Your task to perform on an android device: turn on wifi Image 0: 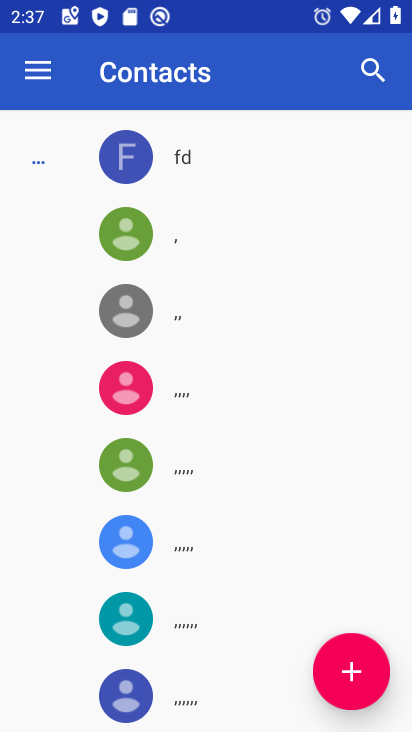
Step 0: press home button
Your task to perform on an android device: turn on wifi Image 1: 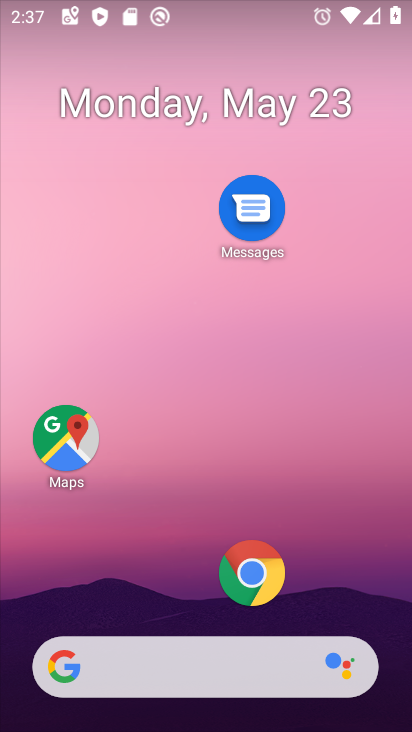
Step 1: drag from (297, 659) to (301, 27)
Your task to perform on an android device: turn on wifi Image 2: 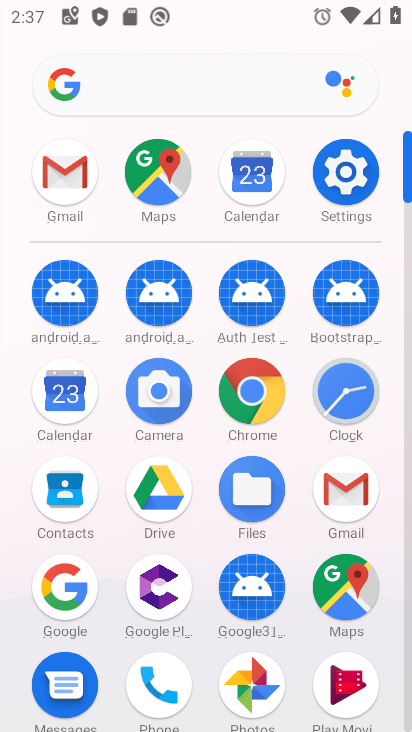
Step 2: click (340, 159)
Your task to perform on an android device: turn on wifi Image 3: 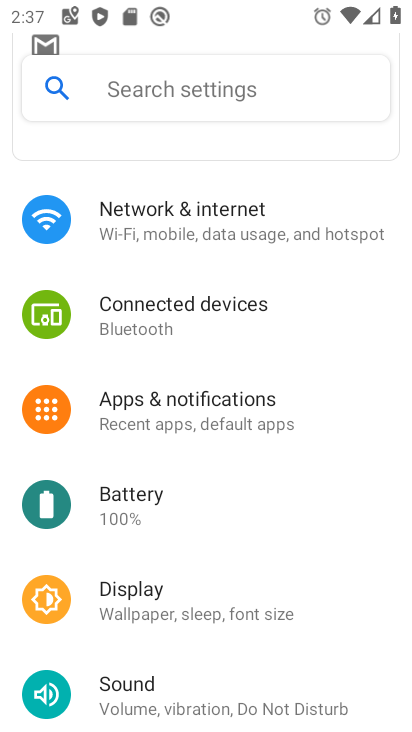
Step 3: drag from (315, 193) to (270, 717)
Your task to perform on an android device: turn on wifi Image 4: 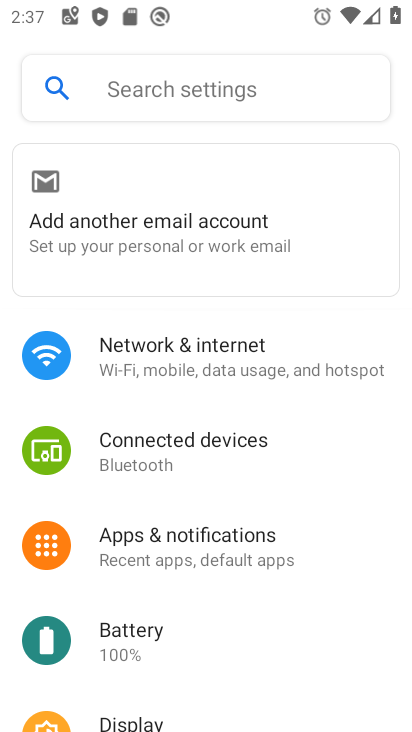
Step 4: click (229, 383)
Your task to perform on an android device: turn on wifi Image 5: 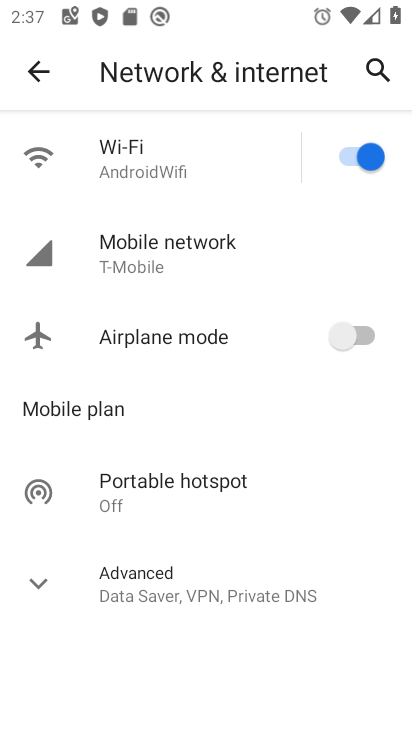
Step 5: drag from (238, 375) to (255, 671)
Your task to perform on an android device: turn on wifi Image 6: 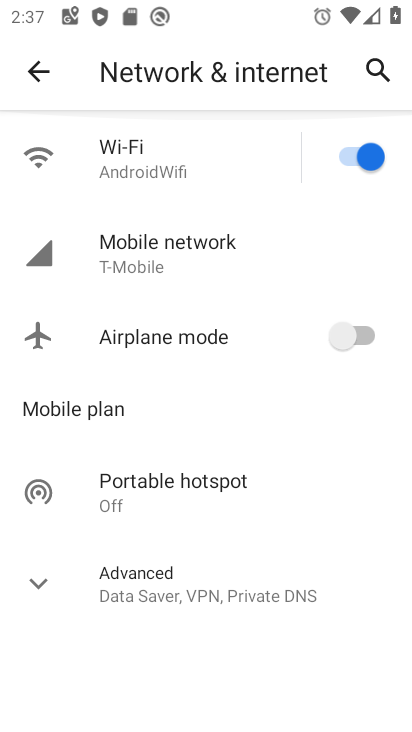
Step 6: click (205, 174)
Your task to perform on an android device: turn on wifi Image 7: 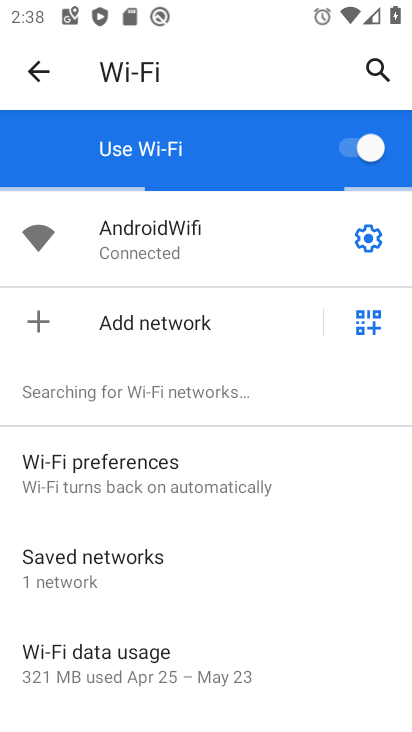
Step 7: task complete